Your task to perform on an android device: Search for seafood restaurants on Google Maps Image 0: 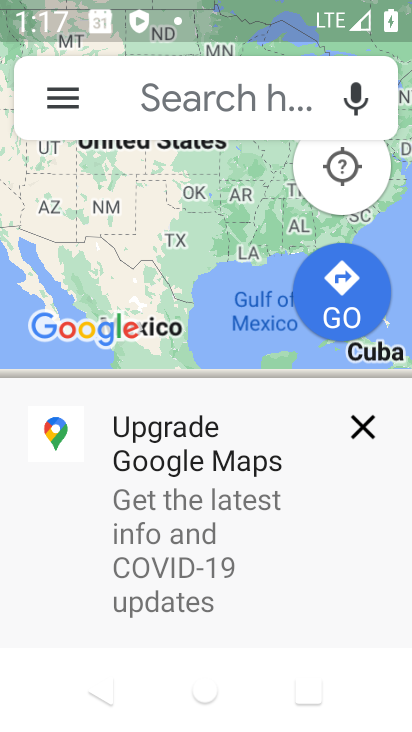
Step 0: press home button
Your task to perform on an android device: Search for seafood restaurants on Google Maps Image 1: 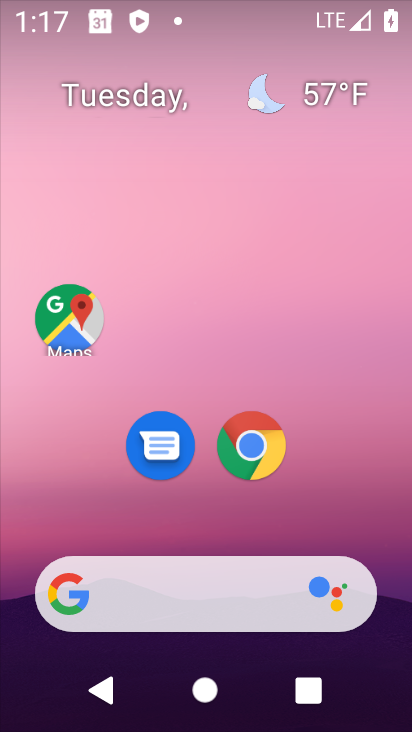
Step 1: drag from (369, 436) to (354, 3)
Your task to perform on an android device: Search for seafood restaurants on Google Maps Image 2: 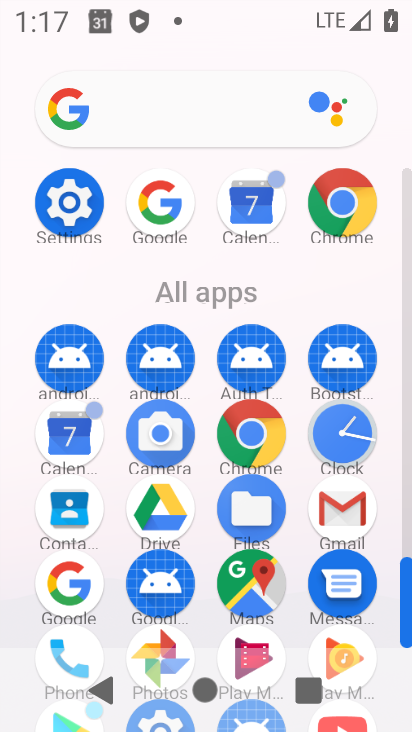
Step 2: click (273, 587)
Your task to perform on an android device: Search for seafood restaurants on Google Maps Image 3: 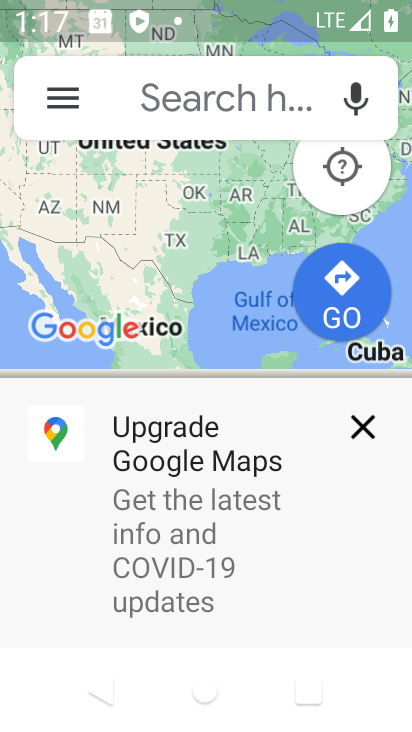
Step 3: click (211, 96)
Your task to perform on an android device: Search for seafood restaurants on Google Maps Image 4: 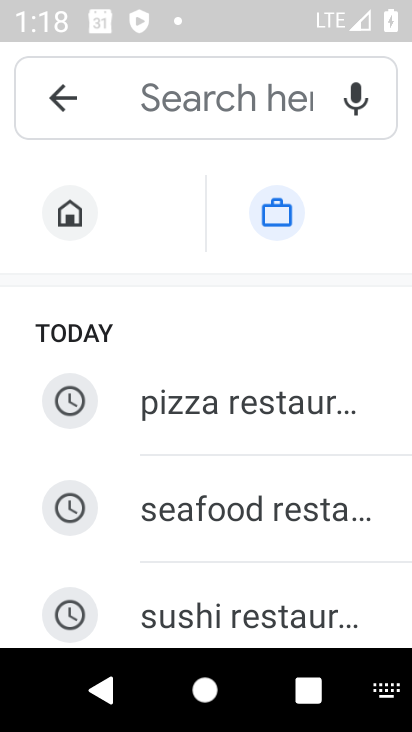
Step 4: type "seafood  restaurants"
Your task to perform on an android device: Search for seafood restaurants on Google Maps Image 5: 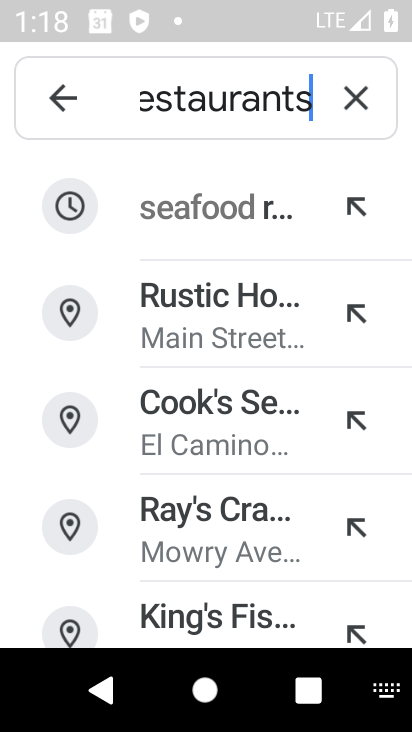
Step 5: click (226, 219)
Your task to perform on an android device: Search for seafood restaurants on Google Maps Image 6: 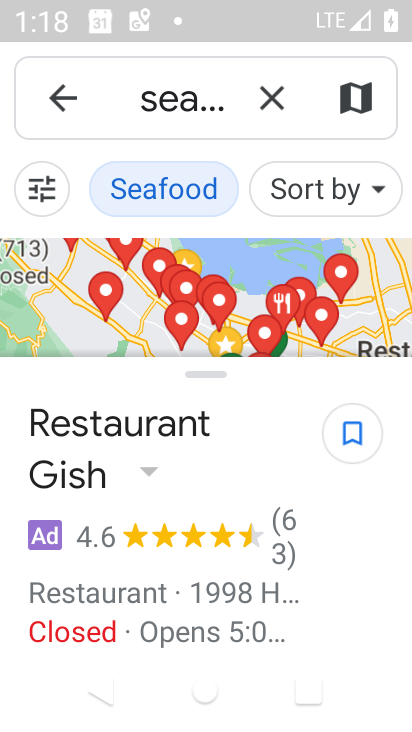
Step 6: task complete